Your task to perform on an android device: change the clock display to analog Image 0: 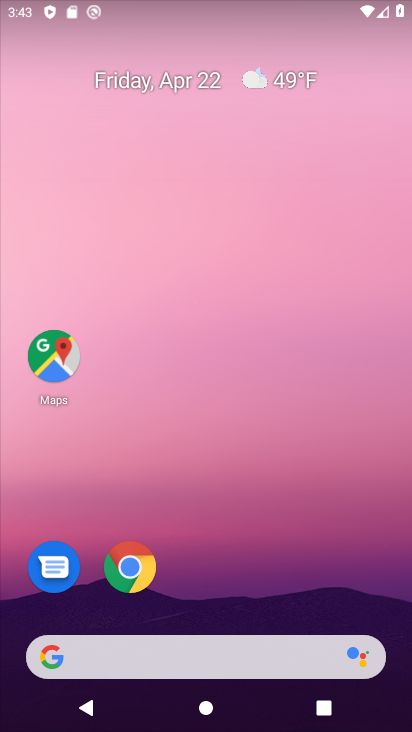
Step 0: drag from (209, 703) to (209, 112)
Your task to perform on an android device: change the clock display to analog Image 1: 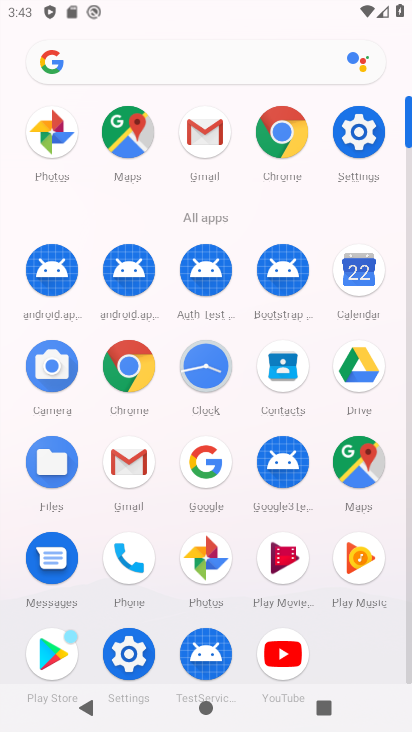
Step 1: click (201, 366)
Your task to perform on an android device: change the clock display to analog Image 2: 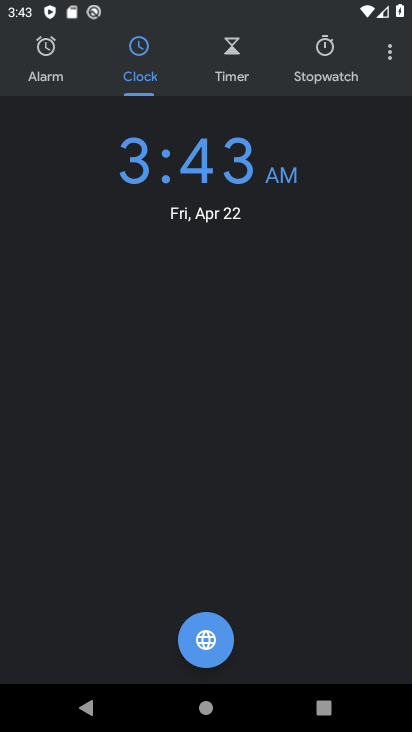
Step 2: drag from (388, 53) to (280, 98)
Your task to perform on an android device: change the clock display to analog Image 3: 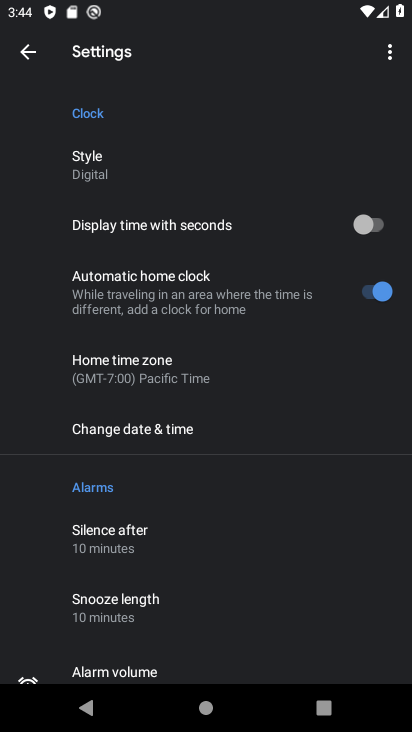
Step 3: click (95, 162)
Your task to perform on an android device: change the clock display to analog Image 4: 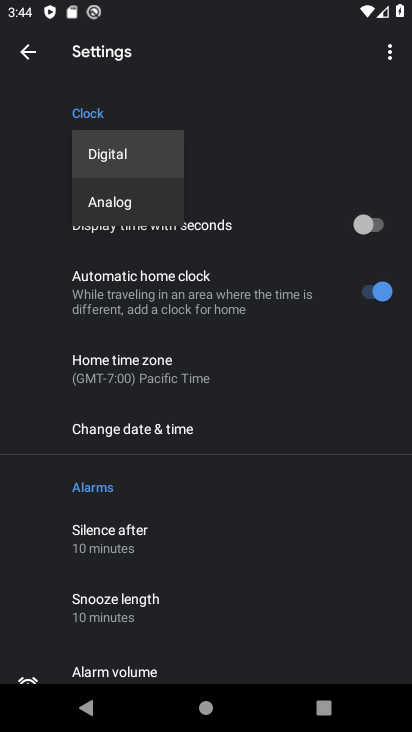
Step 4: click (107, 202)
Your task to perform on an android device: change the clock display to analog Image 5: 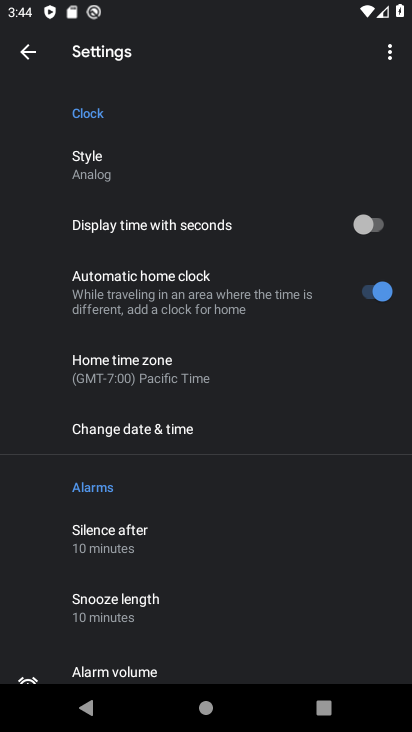
Step 5: task complete